Your task to perform on an android device: toggle improve location accuracy Image 0: 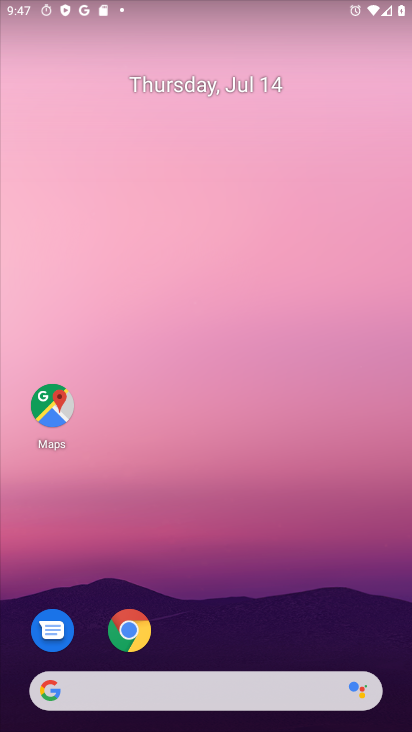
Step 0: drag from (38, 696) to (161, 306)
Your task to perform on an android device: toggle improve location accuracy Image 1: 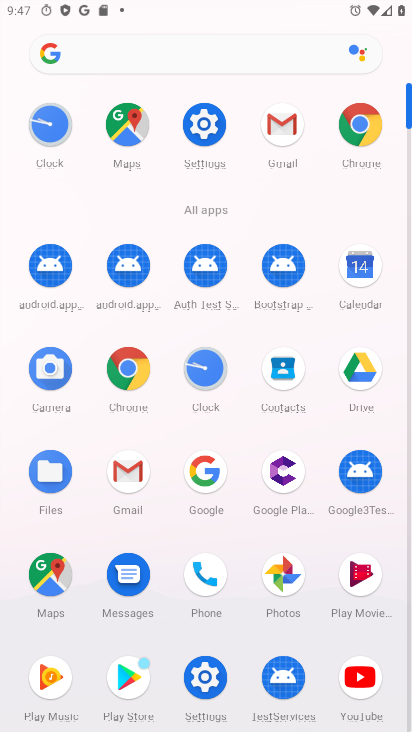
Step 1: click (191, 683)
Your task to perform on an android device: toggle improve location accuracy Image 2: 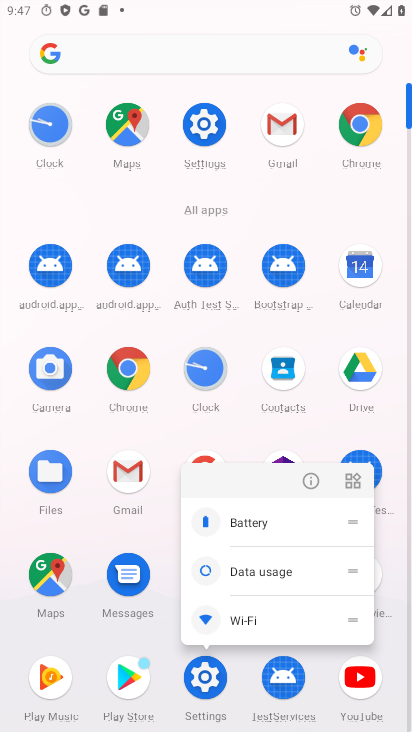
Step 2: click (192, 679)
Your task to perform on an android device: toggle improve location accuracy Image 3: 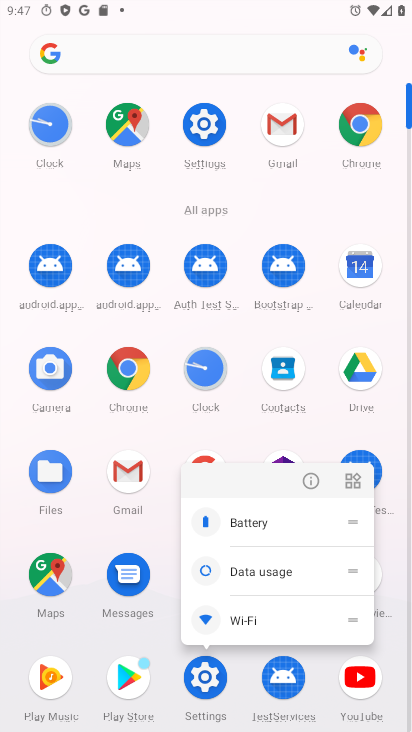
Step 3: click (199, 676)
Your task to perform on an android device: toggle improve location accuracy Image 4: 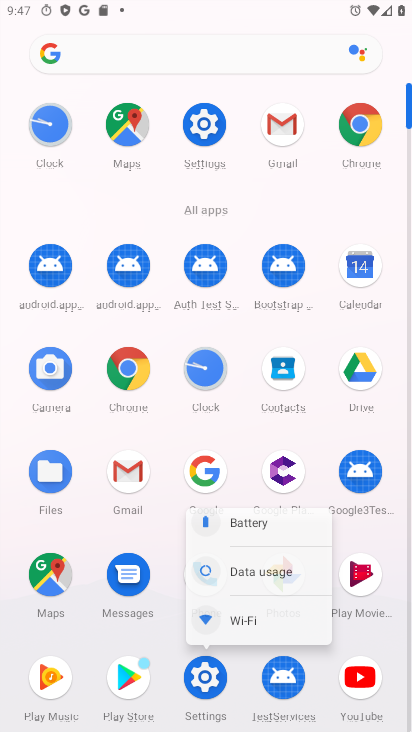
Step 4: click (199, 676)
Your task to perform on an android device: toggle improve location accuracy Image 5: 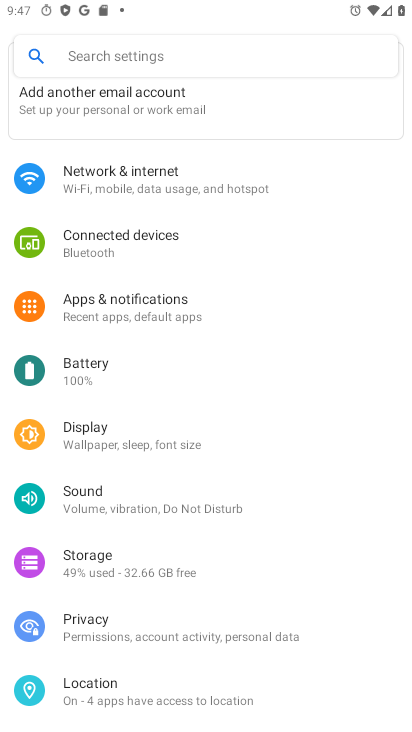
Step 5: click (122, 679)
Your task to perform on an android device: toggle improve location accuracy Image 6: 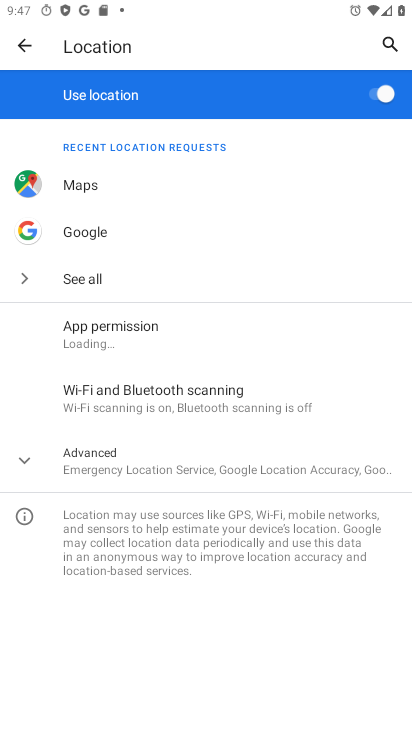
Step 6: click (90, 469)
Your task to perform on an android device: toggle improve location accuracy Image 7: 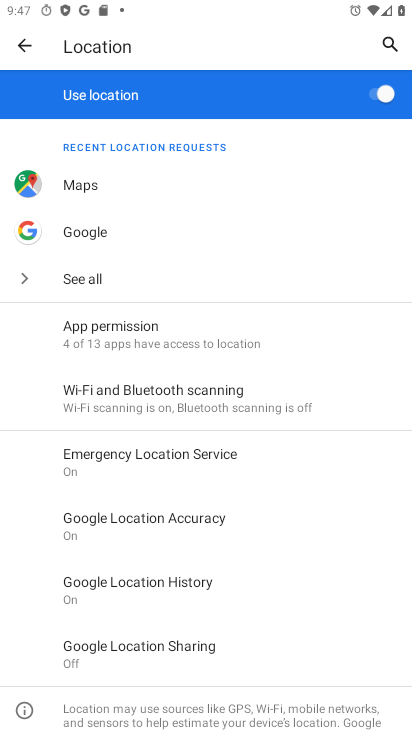
Step 7: task complete